Your task to perform on an android device: Open CNN.com Image 0: 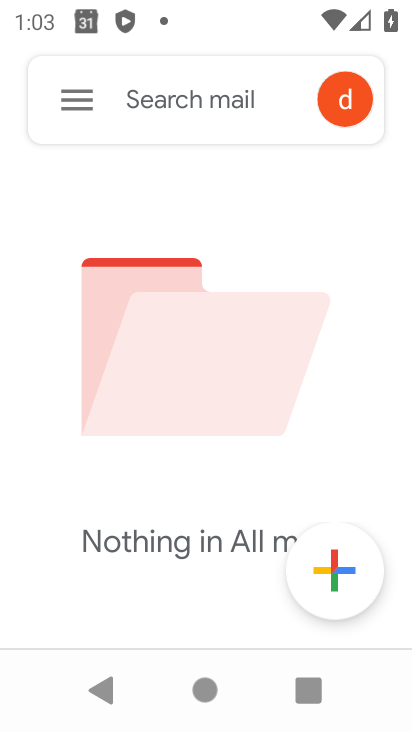
Step 0: press back button
Your task to perform on an android device: Open CNN.com Image 1: 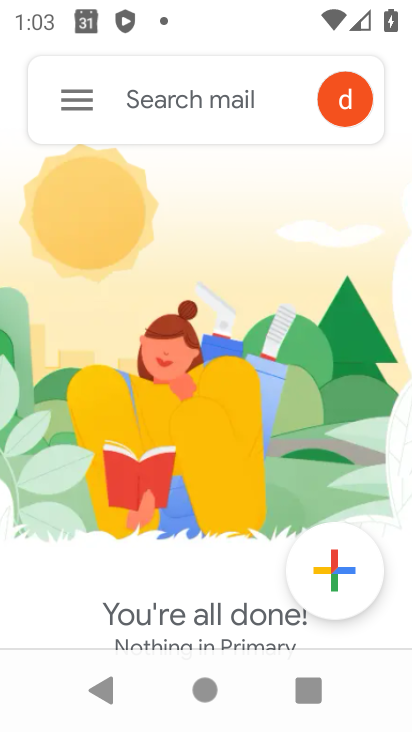
Step 1: press home button
Your task to perform on an android device: Open CNN.com Image 2: 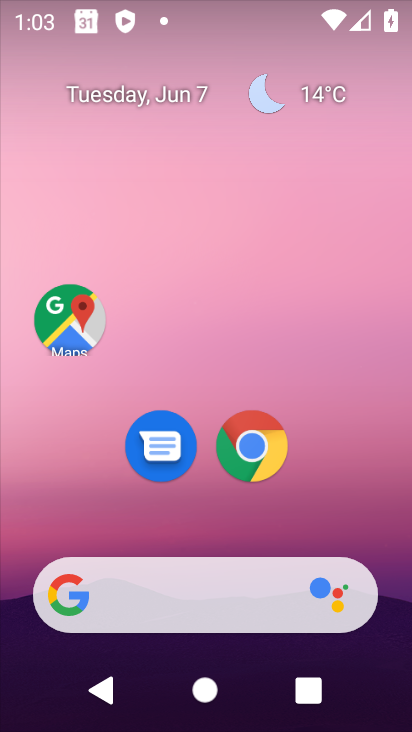
Step 2: drag from (359, 539) to (294, 0)
Your task to perform on an android device: Open CNN.com Image 3: 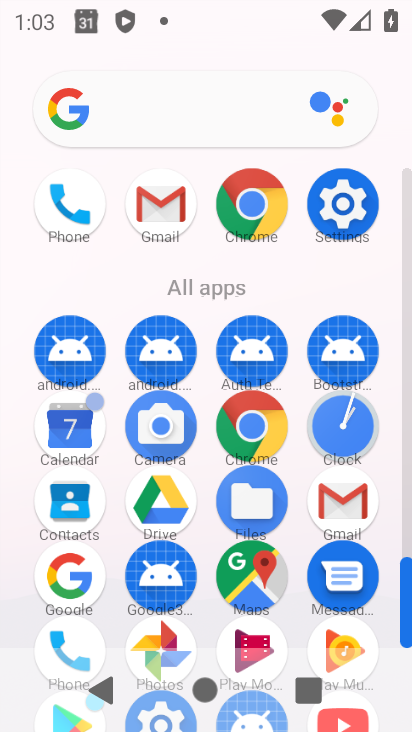
Step 3: click (254, 199)
Your task to perform on an android device: Open CNN.com Image 4: 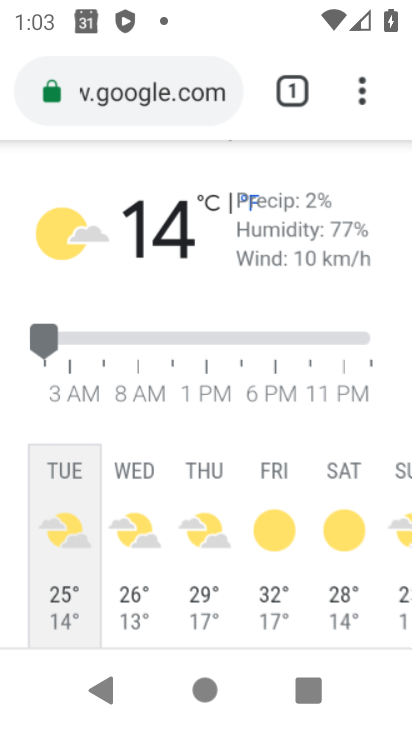
Step 4: click (170, 92)
Your task to perform on an android device: Open CNN.com Image 5: 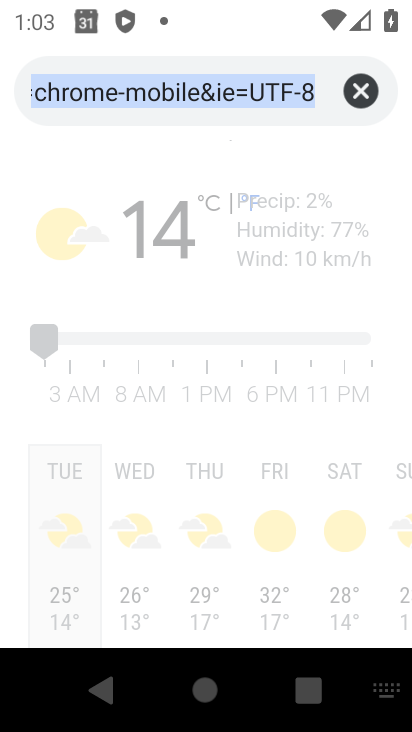
Step 5: click (357, 88)
Your task to perform on an android device: Open CNN.com Image 6: 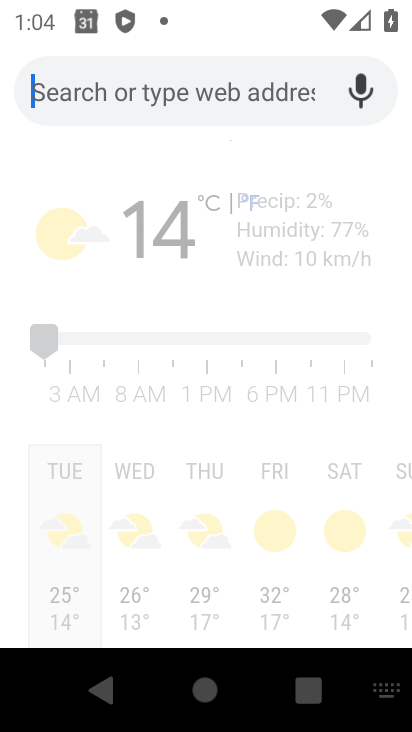
Step 6: type "CNN.com"
Your task to perform on an android device: Open CNN.com Image 7: 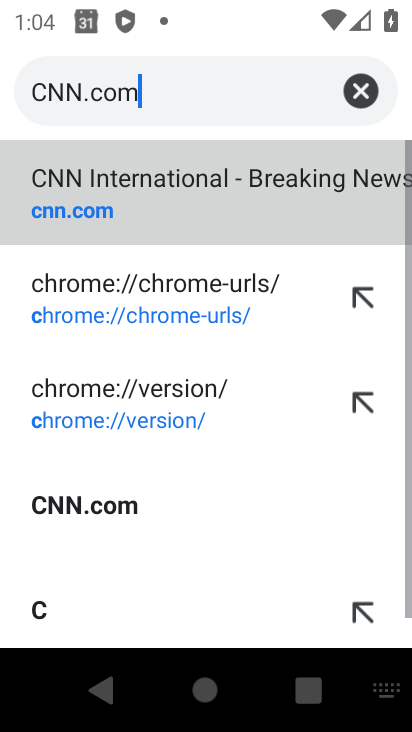
Step 7: type ""
Your task to perform on an android device: Open CNN.com Image 8: 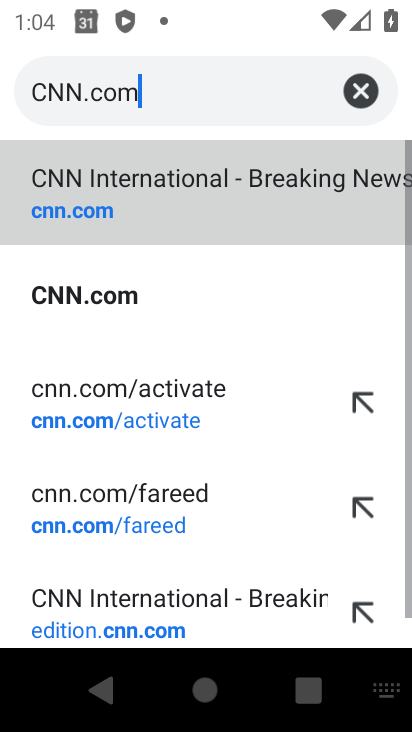
Step 8: click (198, 175)
Your task to perform on an android device: Open CNN.com Image 9: 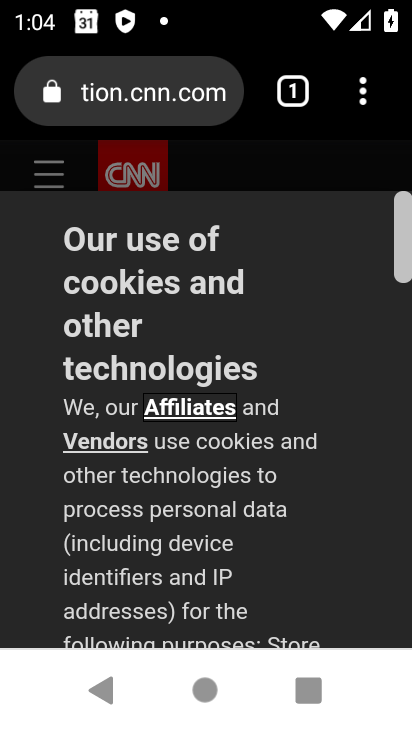
Step 9: task complete